Your task to perform on an android device: What's on my calendar today? Image 0: 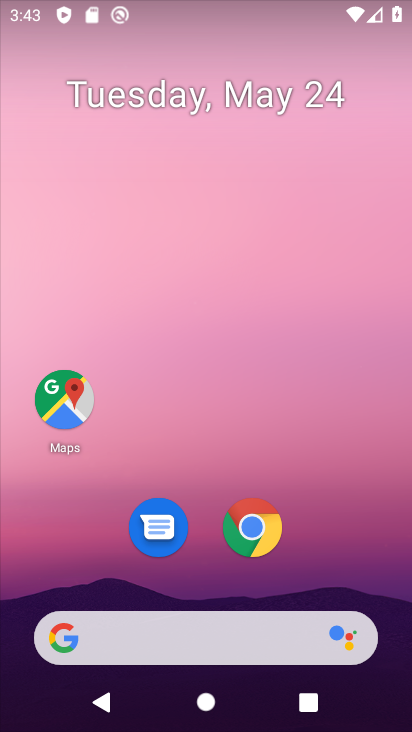
Step 0: press home button
Your task to perform on an android device: What's on my calendar today? Image 1: 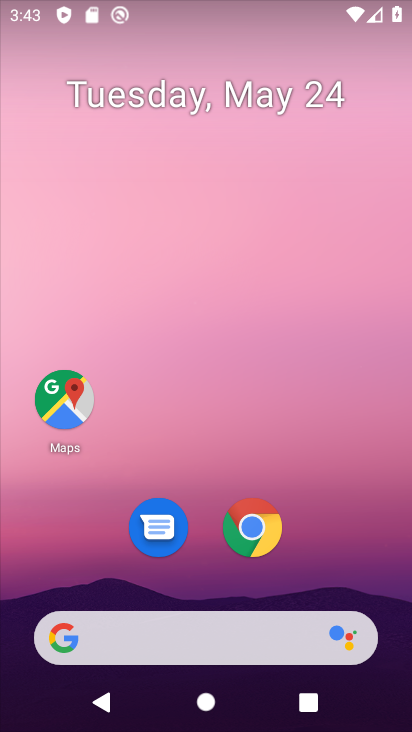
Step 1: drag from (227, 661) to (216, 135)
Your task to perform on an android device: What's on my calendar today? Image 2: 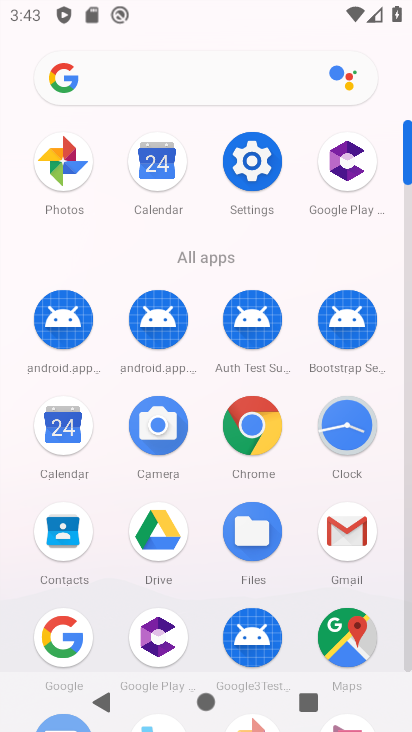
Step 2: click (48, 425)
Your task to perform on an android device: What's on my calendar today? Image 3: 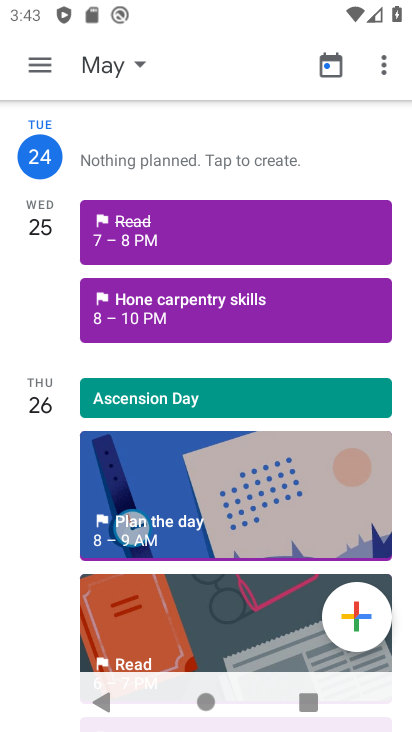
Step 3: click (40, 78)
Your task to perform on an android device: What's on my calendar today? Image 4: 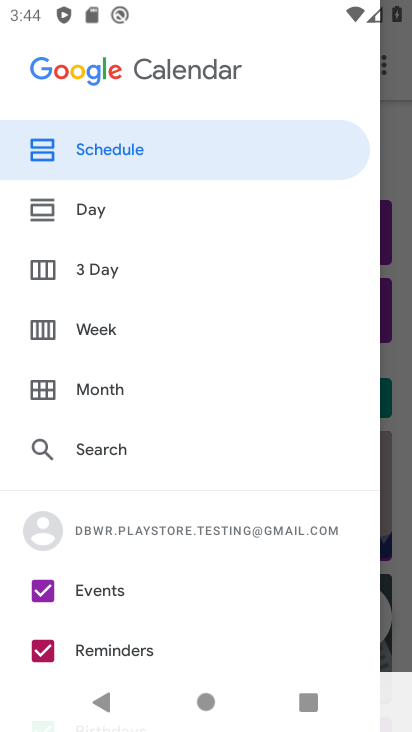
Step 4: click (114, 159)
Your task to perform on an android device: What's on my calendar today? Image 5: 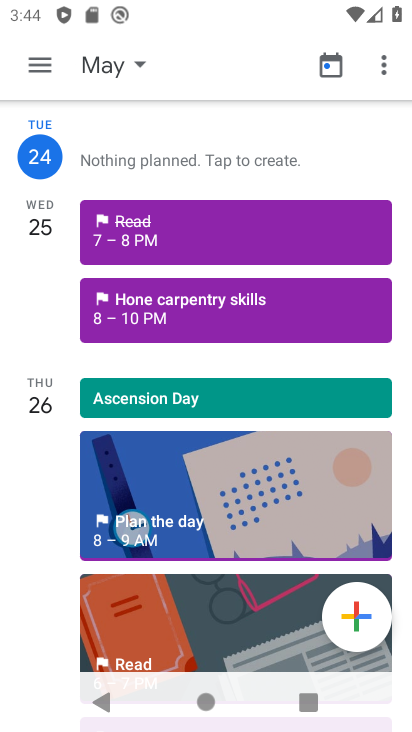
Step 5: task complete